Your task to perform on an android device: clear history in the chrome app Image 0: 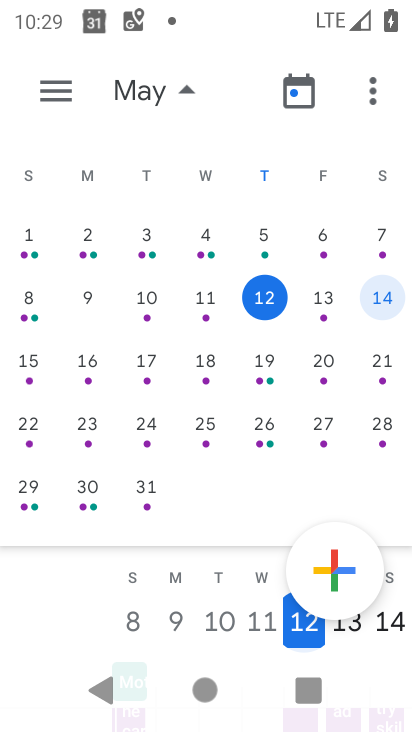
Step 0: press home button
Your task to perform on an android device: clear history in the chrome app Image 1: 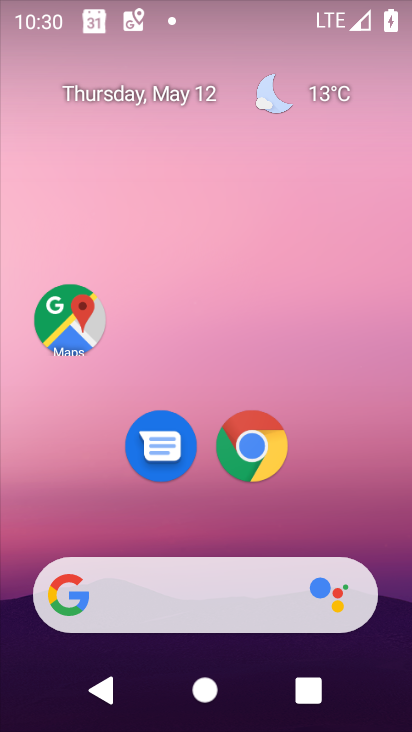
Step 1: drag from (282, 592) to (255, 126)
Your task to perform on an android device: clear history in the chrome app Image 2: 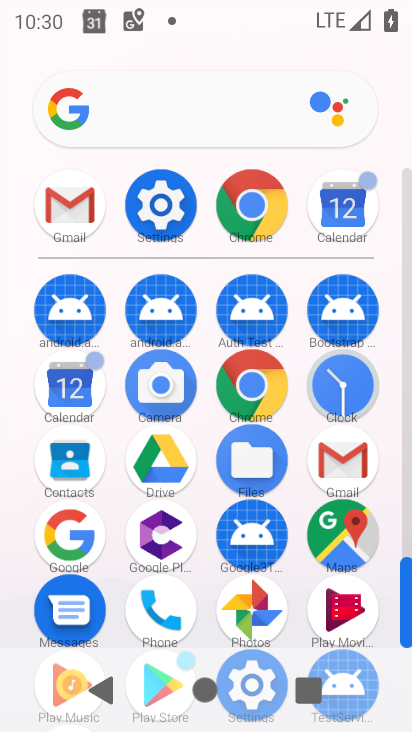
Step 2: click (256, 386)
Your task to perform on an android device: clear history in the chrome app Image 3: 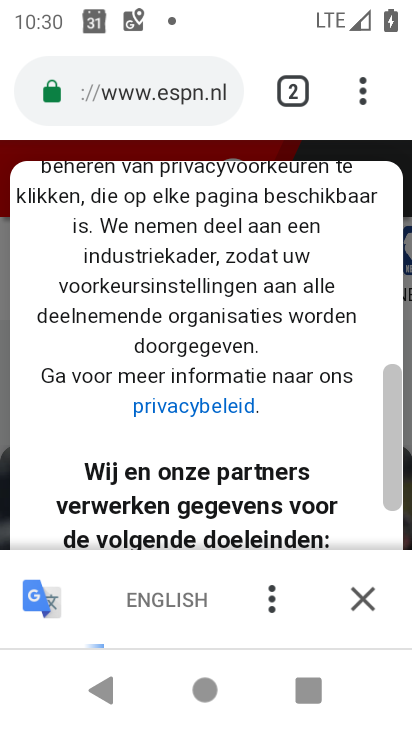
Step 3: drag from (371, 90) to (72, 500)
Your task to perform on an android device: clear history in the chrome app Image 4: 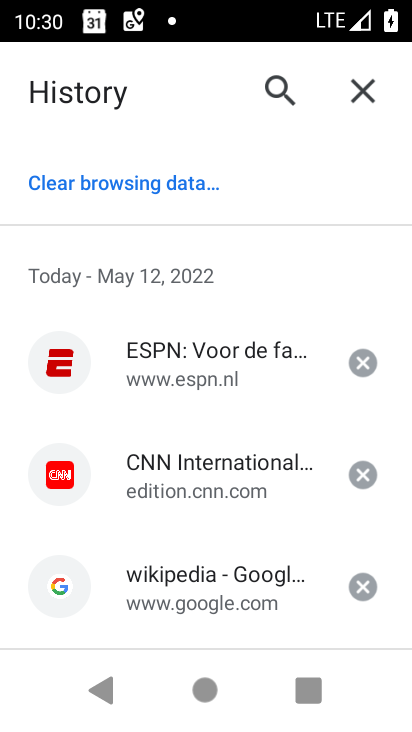
Step 4: drag from (125, 185) to (88, 185)
Your task to perform on an android device: clear history in the chrome app Image 5: 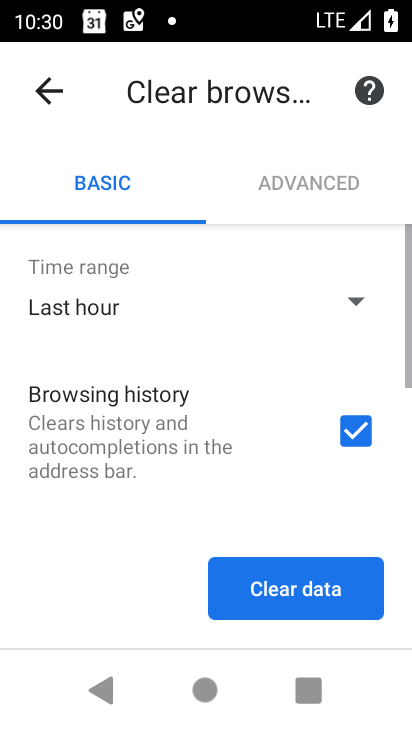
Step 5: click (317, 605)
Your task to perform on an android device: clear history in the chrome app Image 6: 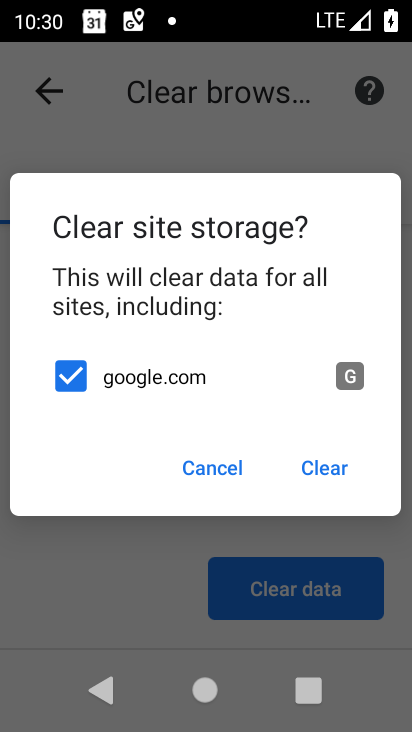
Step 6: click (329, 469)
Your task to perform on an android device: clear history in the chrome app Image 7: 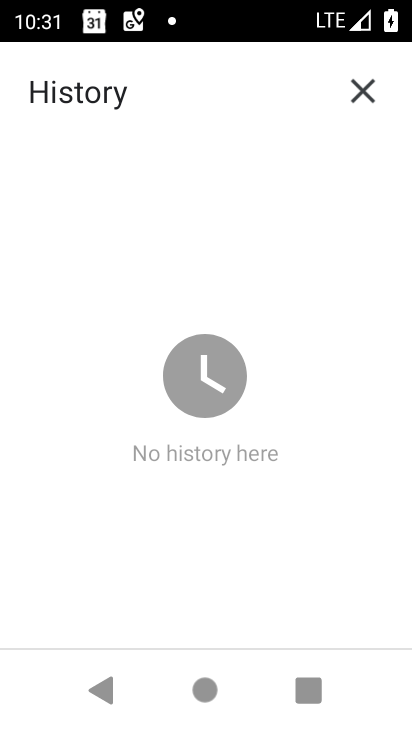
Step 7: press home button
Your task to perform on an android device: clear history in the chrome app Image 8: 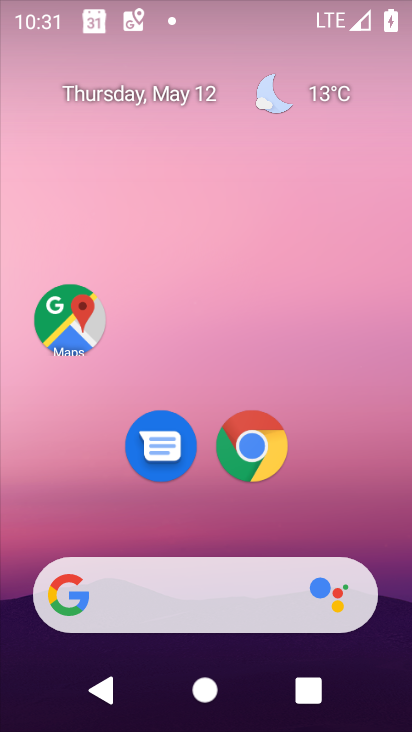
Step 8: drag from (132, 713) to (208, 53)
Your task to perform on an android device: clear history in the chrome app Image 9: 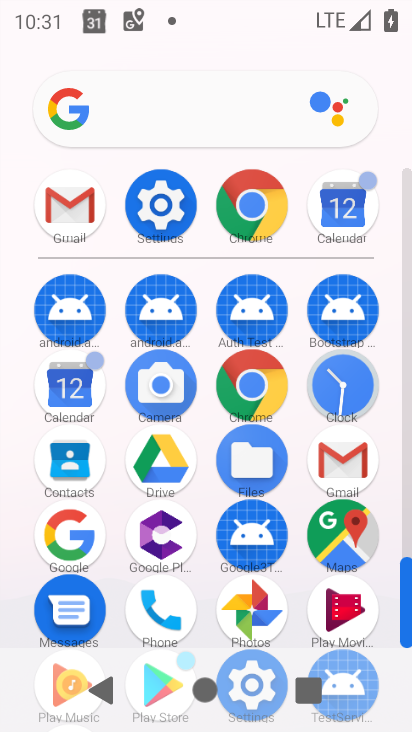
Step 9: click (265, 397)
Your task to perform on an android device: clear history in the chrome app Image 10: 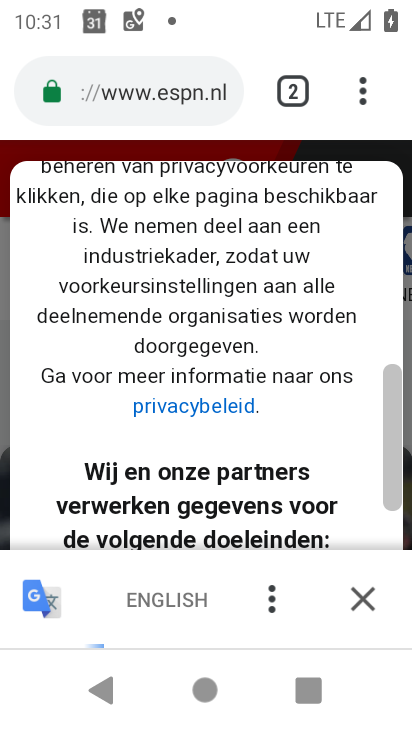
Step 10: task complete